Your task to perform on an android device: find photos in the google photos app Image 0: 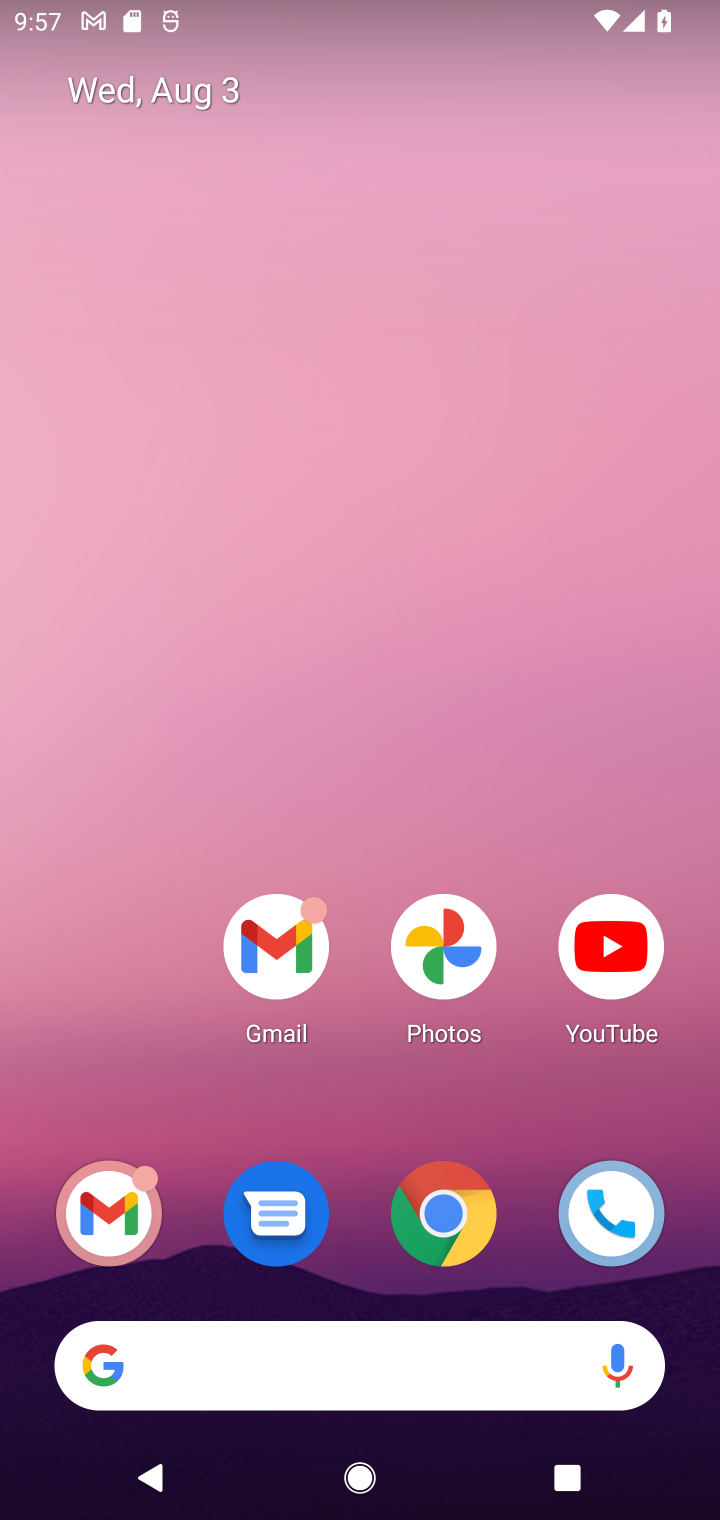
Step 0: click (376, 921)
Your task to perform on an android device: find photos in the google photos app Image 1: 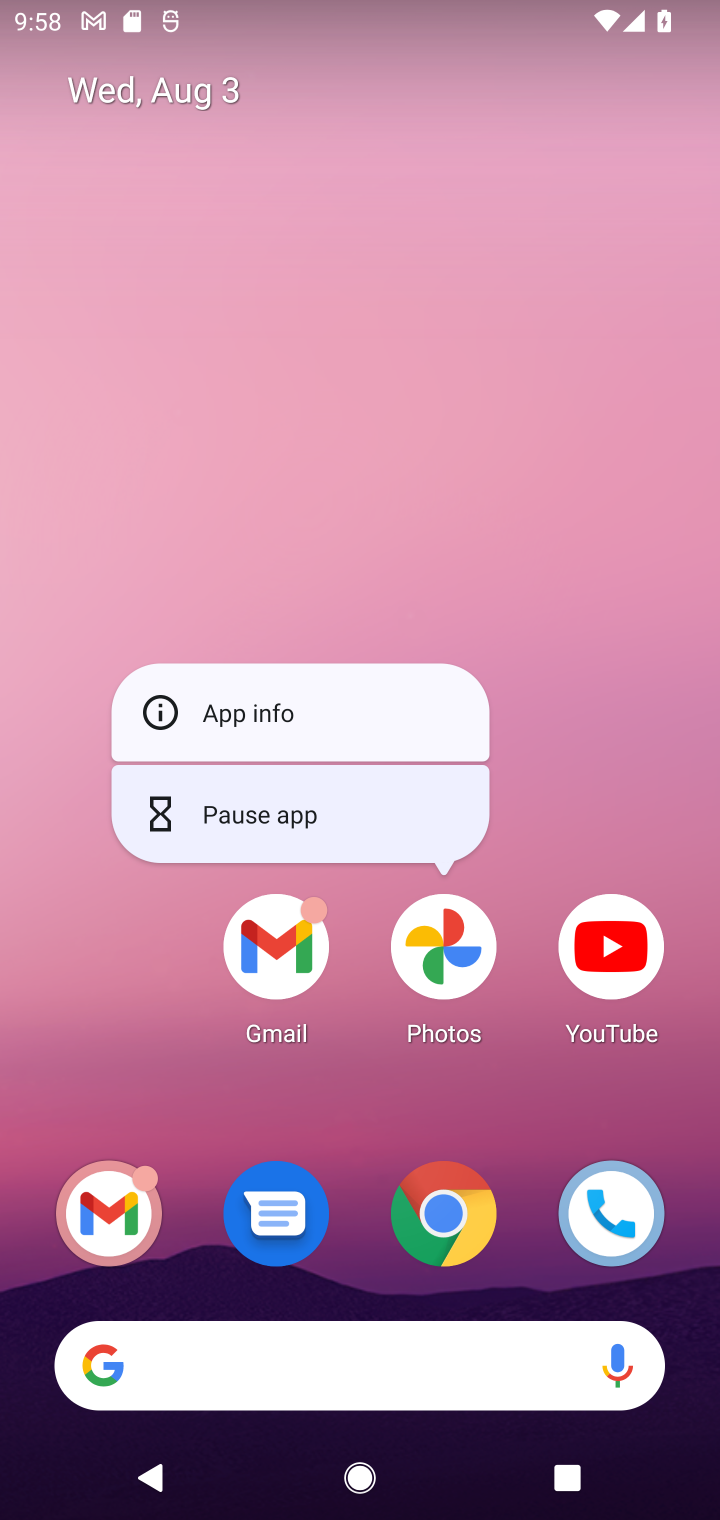
Step 1: click (399, 934)
Your task to perform on an android device: find photos in the google photos app Image 2: 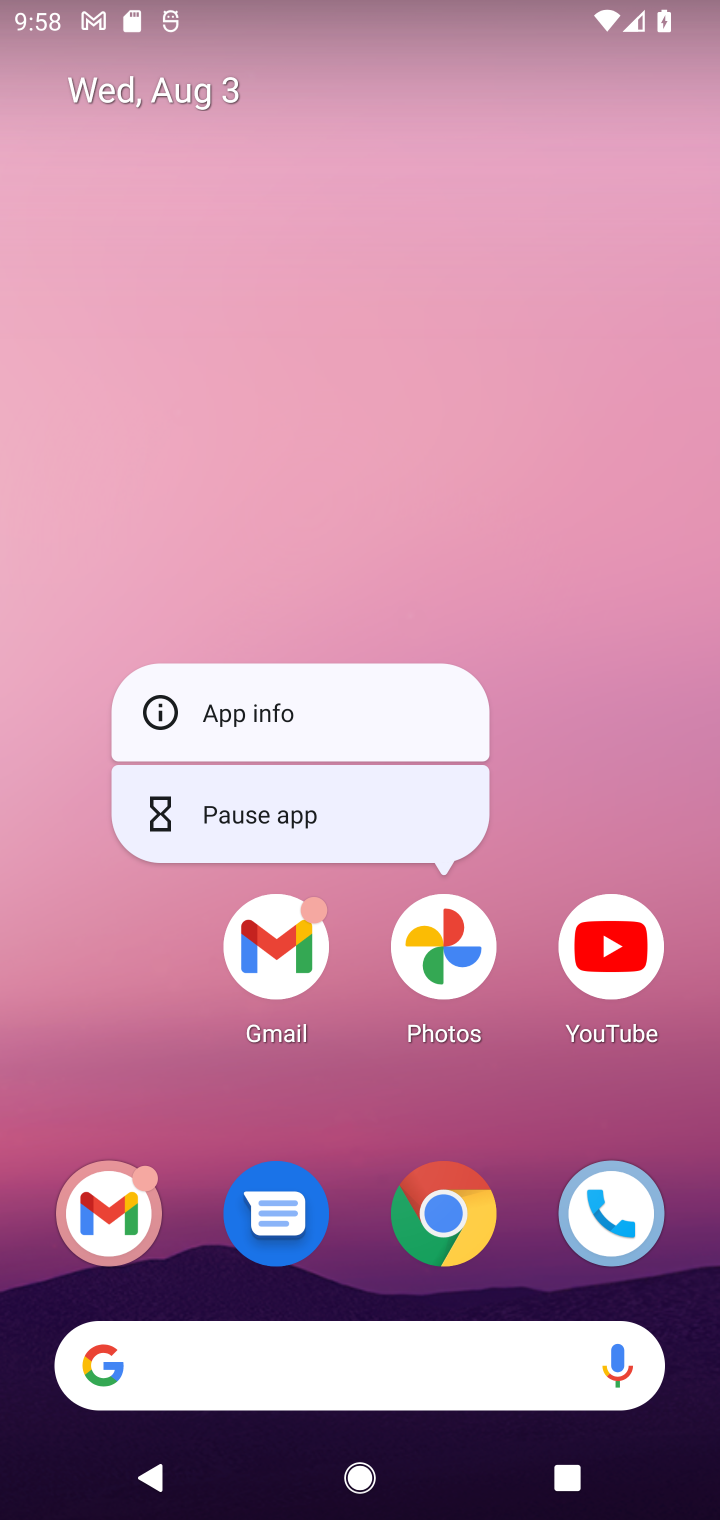
Step 2: click (430, 931)
Your task to perform on an android device: find photos in the google photos app Image 3: 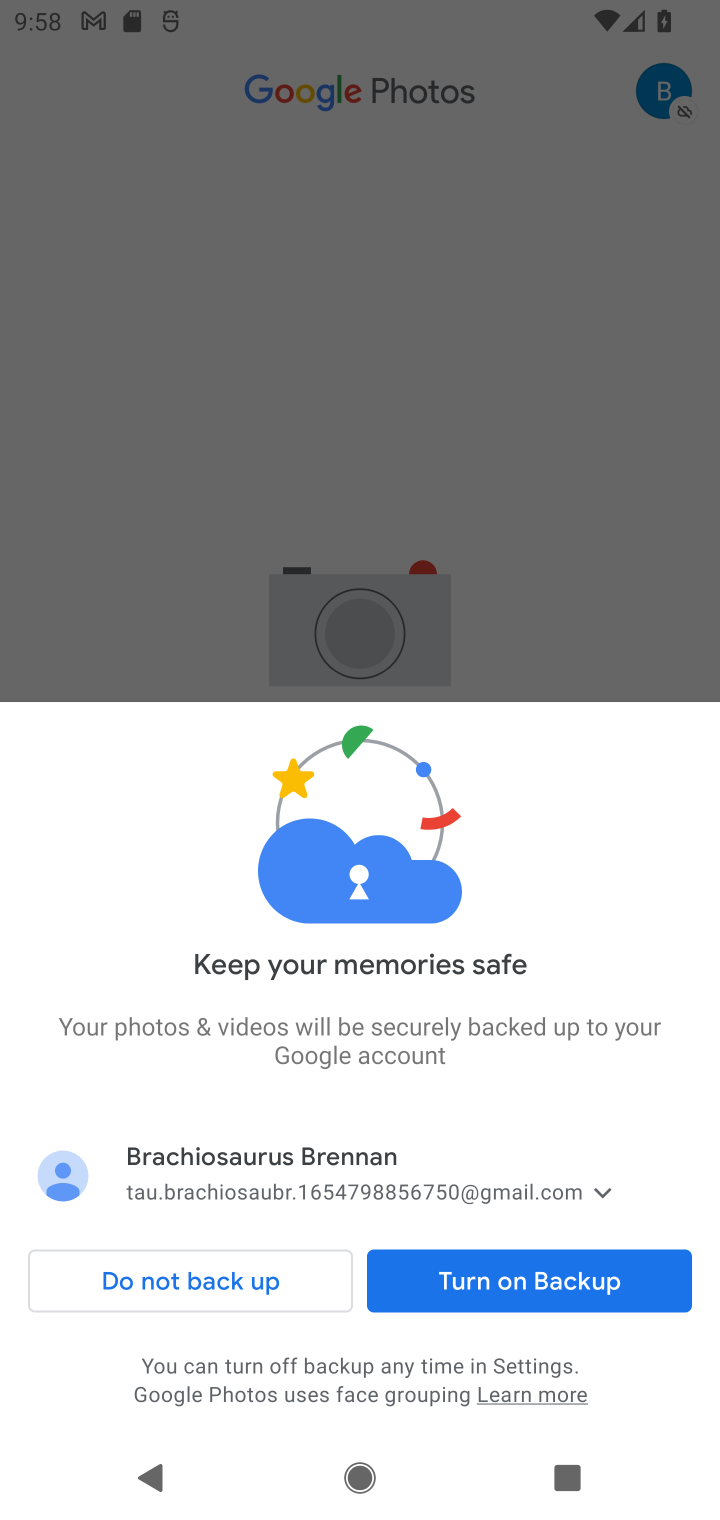
Step 3: click (535, 1278)
Your task to perform on an android device: find photos in the google photos app Image 4: 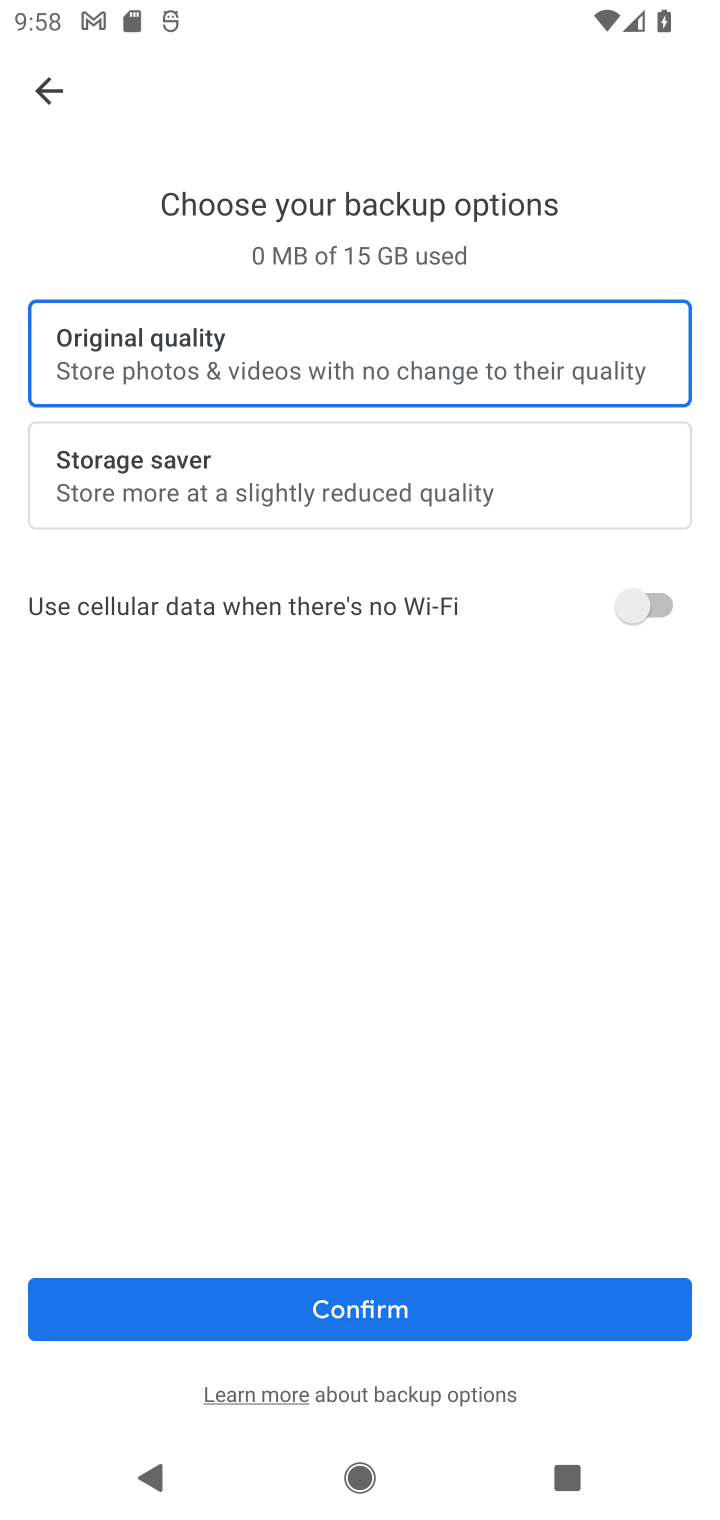
Step 4: click (502, 1282)
Your task to perform on an android device: find photos in the google photos app Image 5: 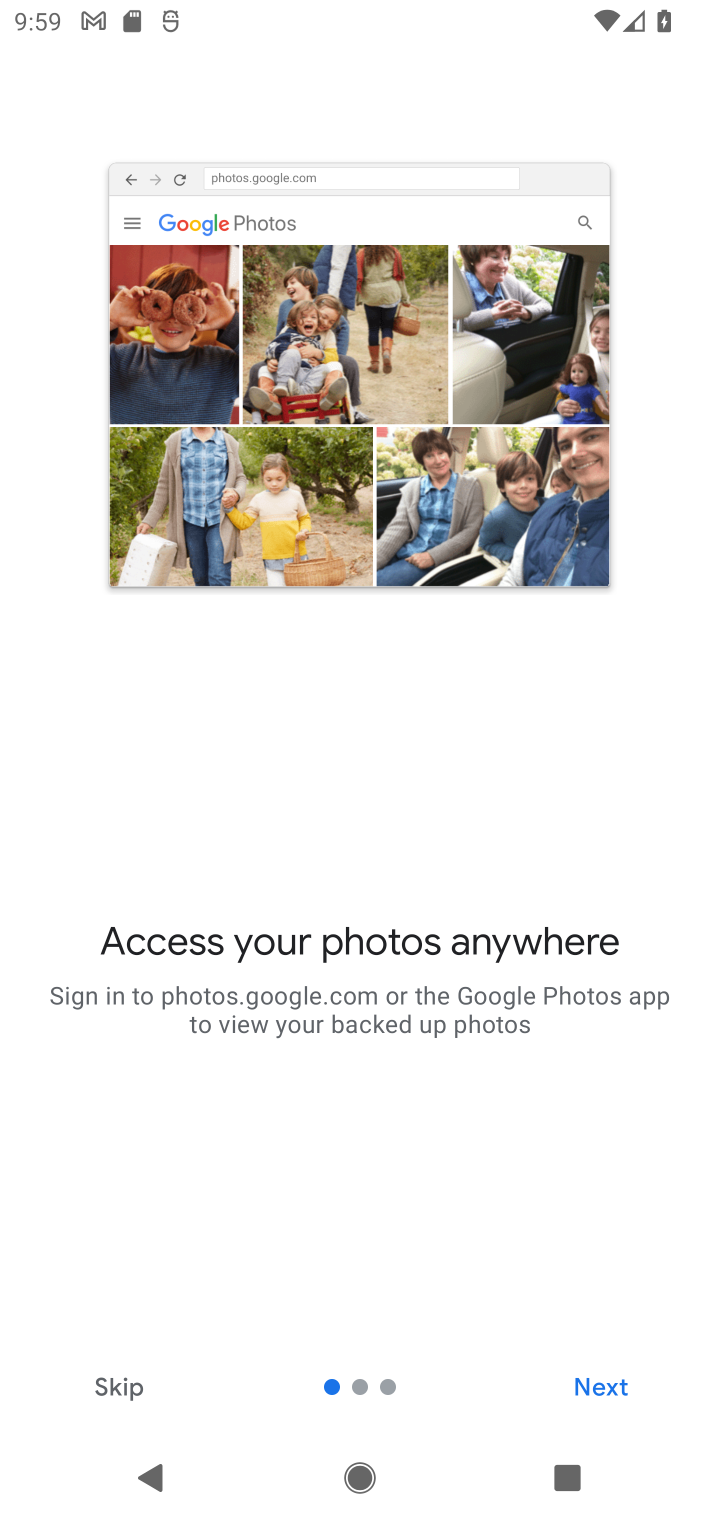
Step 5: click (94, 1393)
Your task to perform on an android device: find photos in the google photos app Image 6: 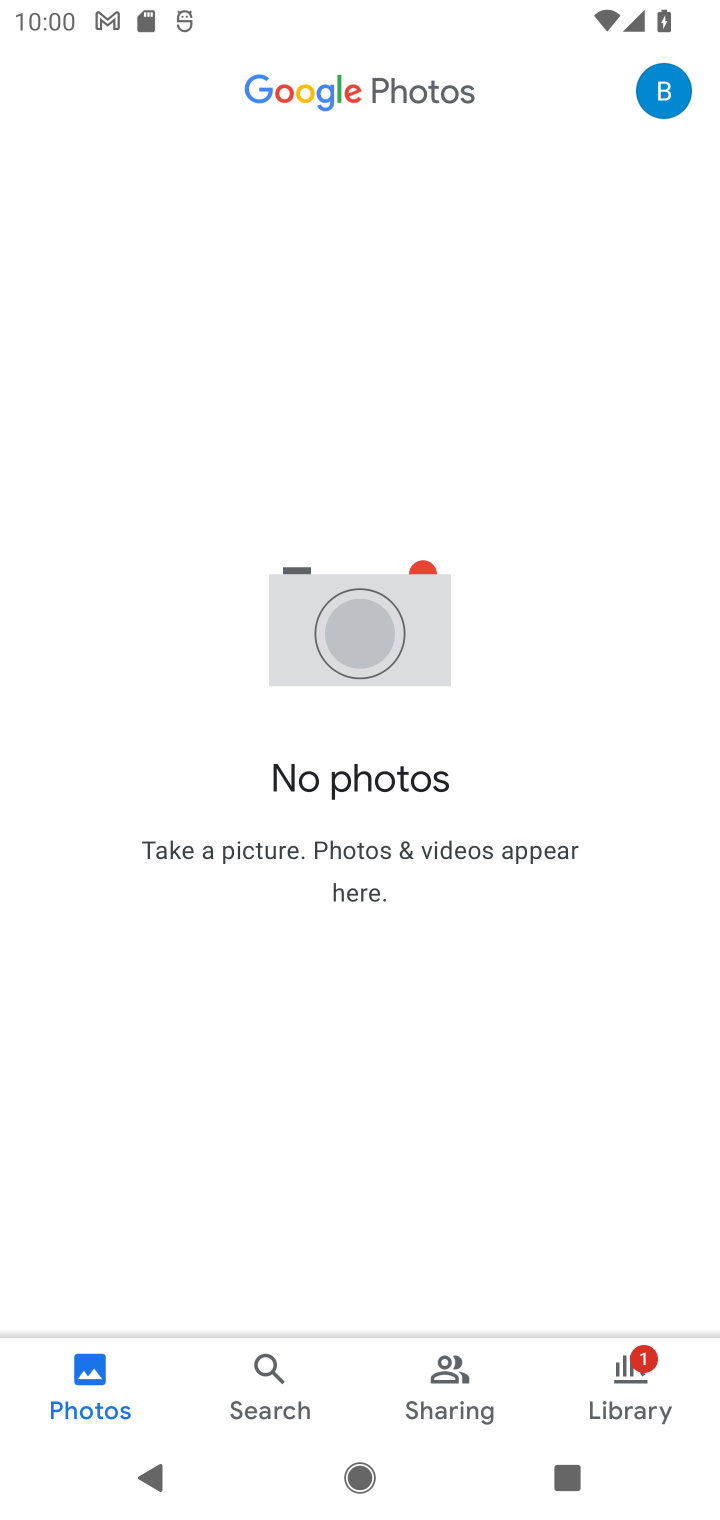
Step 6: task complete